Your task to perform on an android device: star an email in the gmail app Image 0: 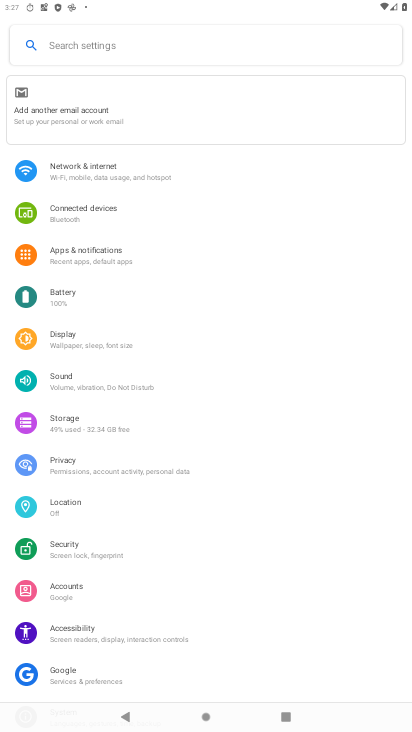
Step 0: press home button
Your task to perform on an android device: star an email in the gmail app Image 1: 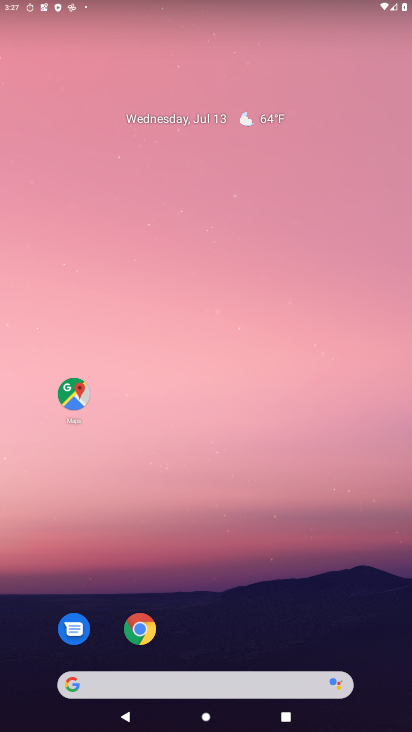
Step 1: drag from (302, 694) to (385, 61)
Your task to perform on an android device: star an email in the gmail app Image 2: 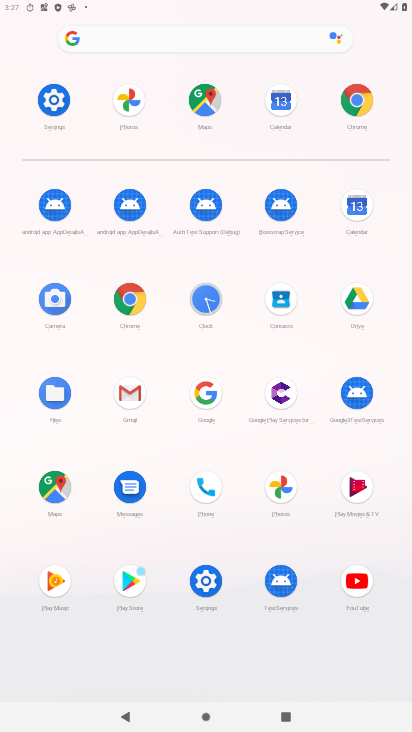
Step 2: click (141, 391)
Your task to perform on an android device: star an email in the gmail app Image 3: 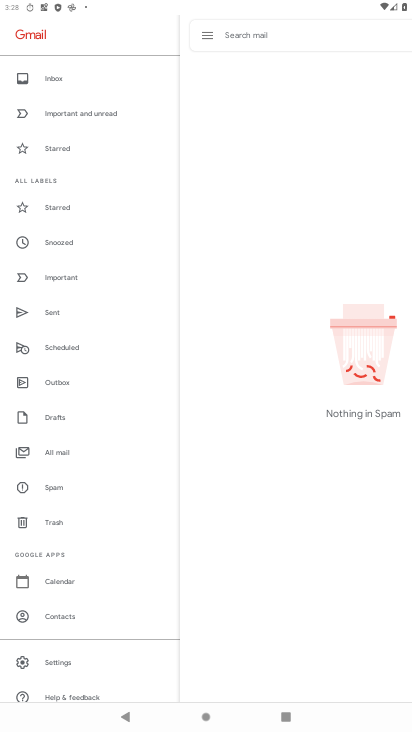
Step 3: click (50, 202)
Your task to perform on an android device: star an email in the gmail app Image 4: 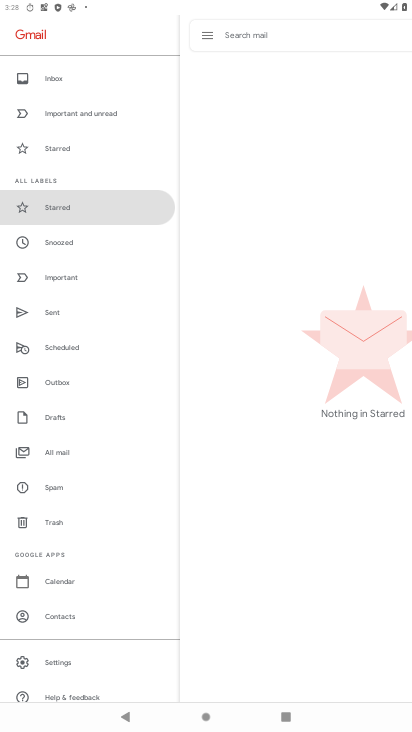
Step 4: task complete